Your task to perform on an android device: turn smart compose on in the gmail app Image 0: 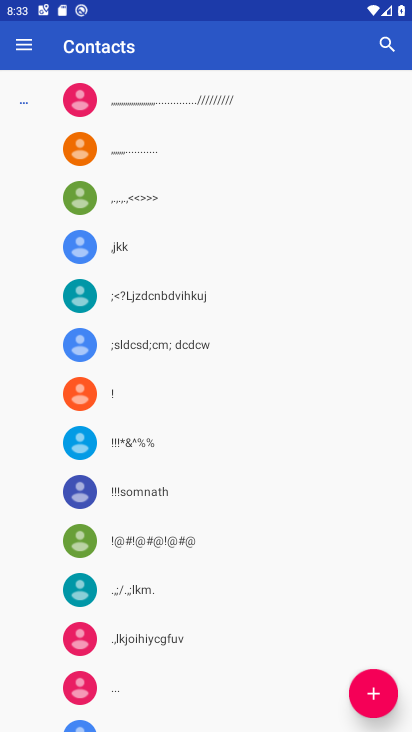
Step 0: press back button
Your task to perform on an android device: turn smart compose on in the gmail app Image 1: 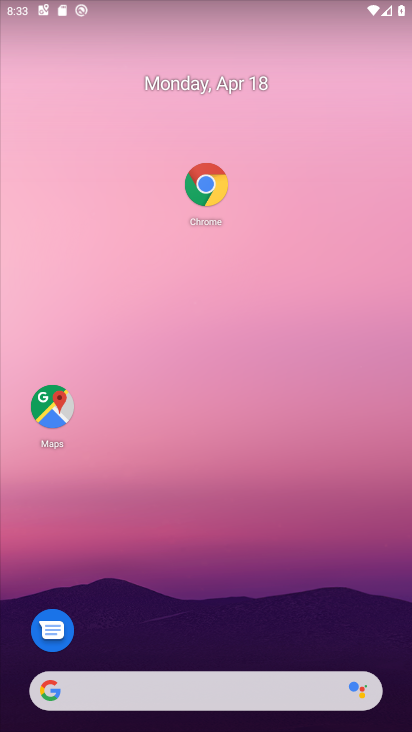
Step 1: drag from (145, 630) to (311, 172)
Your task to perform on an android device: turn smart compose on in the gmail app Image 2: 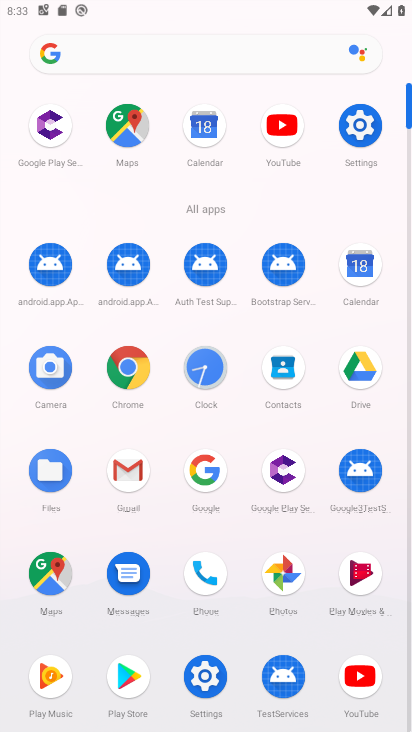
Step 2: click (114, 483)
Your task to perform on an android device: turn smart compose on in the gmail app Image 3: 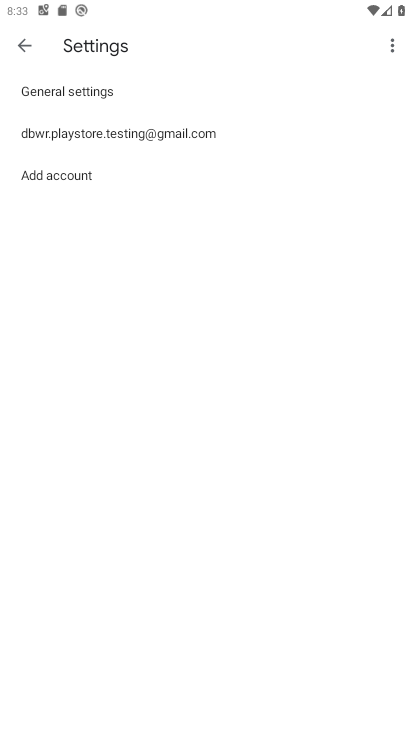
Step 3: click (145, 133)
Your task to perform on an android device: turn smart compose on in the gmail app Image 4: 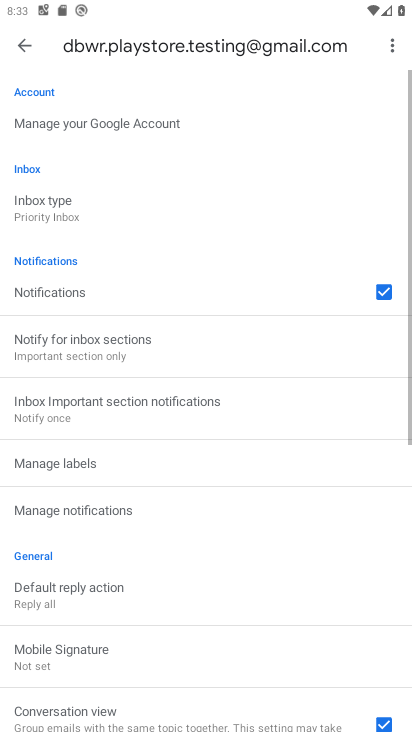
Step 4: task complete